Your task to perform on an android device: see sites visited before in the chrome app Image 0: 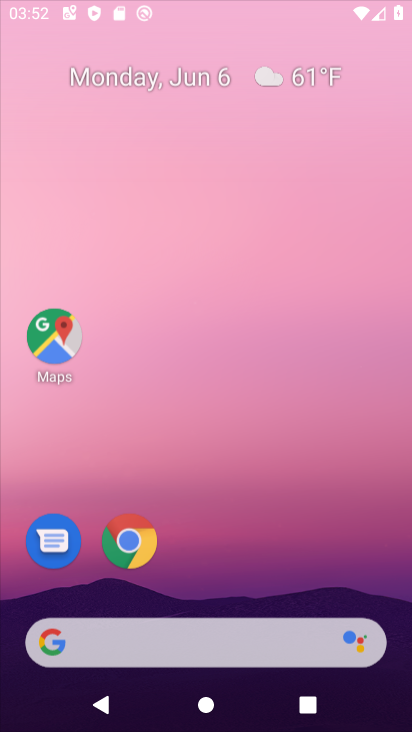
Step 0: press home button
Your task to perform on an android device: see sites visited before in the chrome app Image 1: 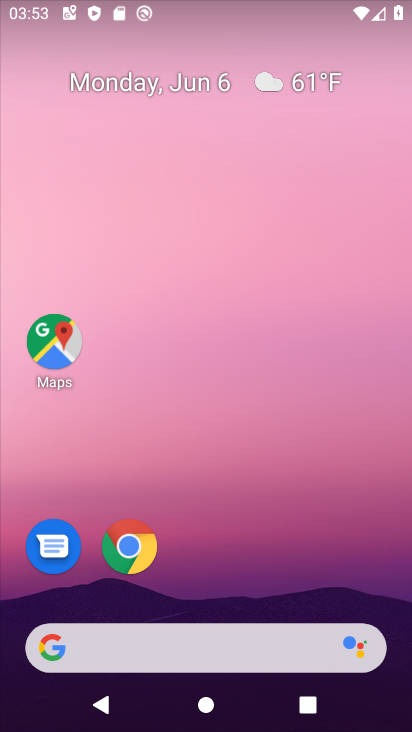
Step 1: click (136, 543)
Your task to perform on an android device: see sites visited before in the chrome app Image 2: 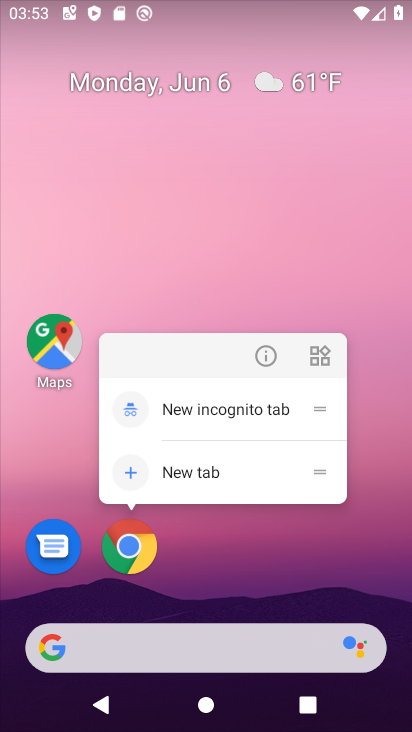
Step 2: click (135, 542)
Your task to perform on an android device: see sites visited before in the chrome app Image 3: 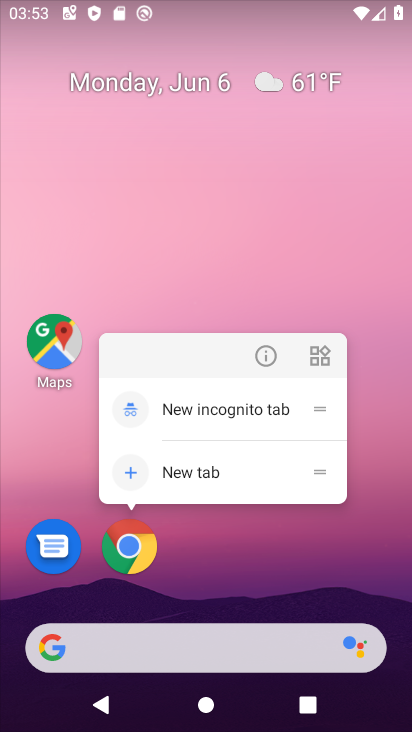
Step 3: click (132, 539)
Your task to perform on an android device: see sites visited before in the chrome app Image 4: 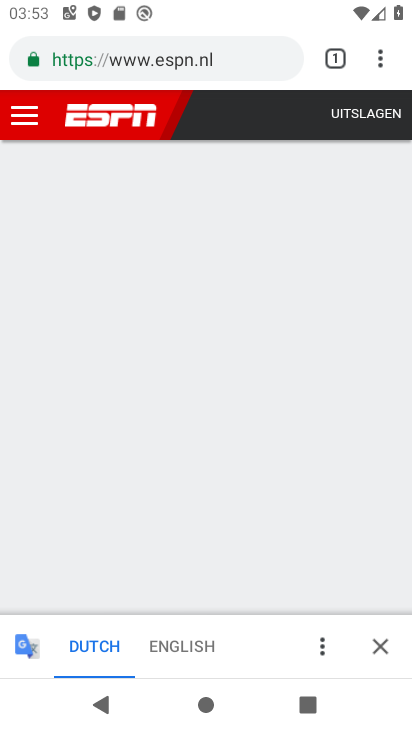
Step 4: task complete